Your task to perform on an android device: turn on sleep mode Image 0: 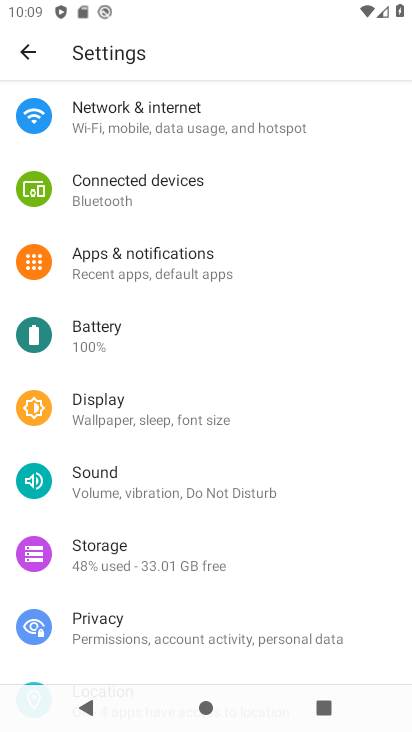
Step 0: click (112, 49)
Your task to perform on an android device: turn on sleep mode Image 1: 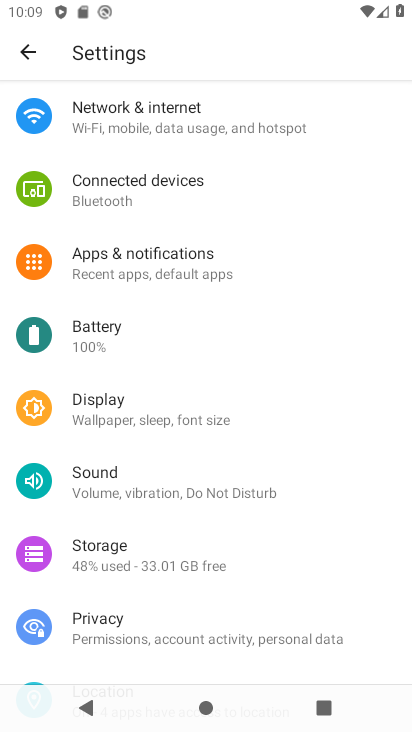
Step 1: drag from (250, 201) to (218, 630)
Your task to perform on an android device: turn on sleep mode Image 2: 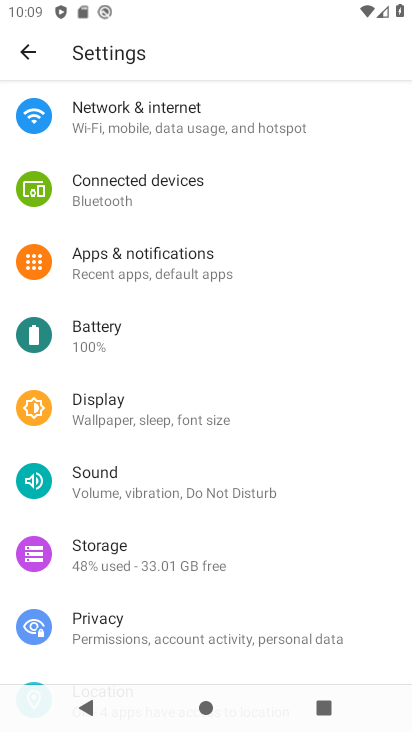
Step 2: click (40, 45)
Your task to perform on an android device: turn on sleep mode Image 3: 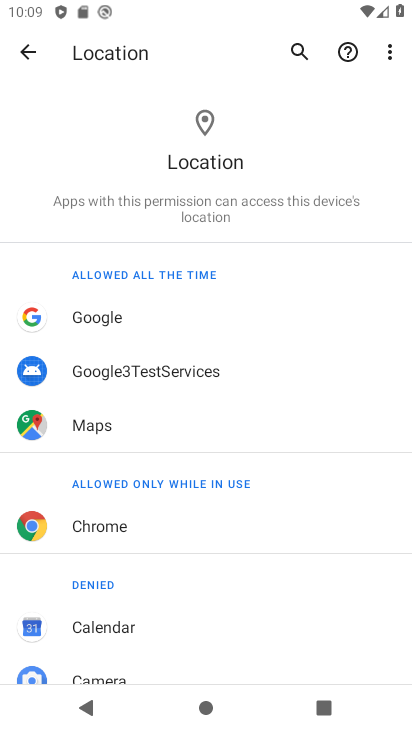
Step 3: press home button
Your task to perform on an android device: turn on sleep mode Image 4: 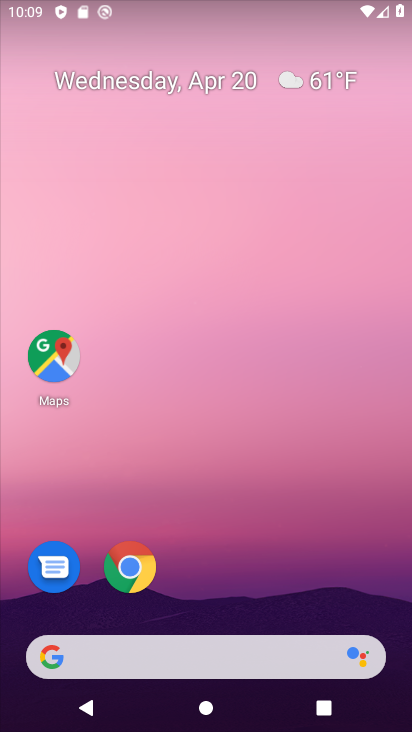
Step 4: drag from (213, 443) to (310, 58)
Your task to perform on an android device: turn on sleep mode Image 5: 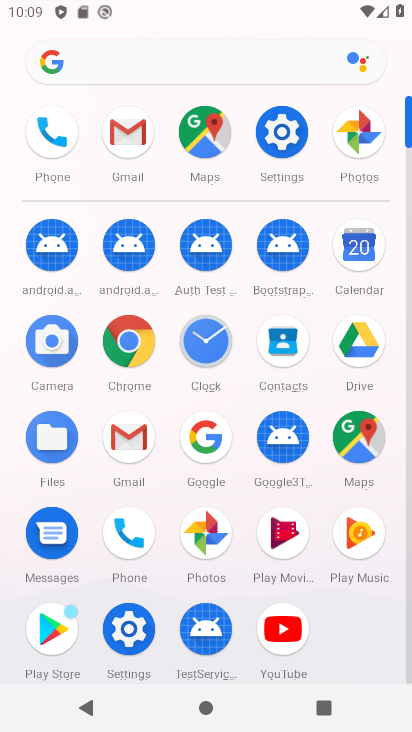
Step 5: click (278, 141)
Your task to perform on an android device: turn on sleep mode Image 6: 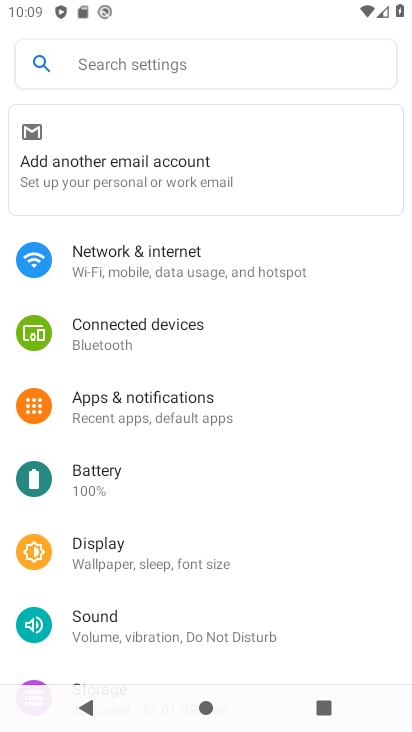
Step 6: click (125, 60)
Your task to perform on an android device: turn on sleep mode Image 7: 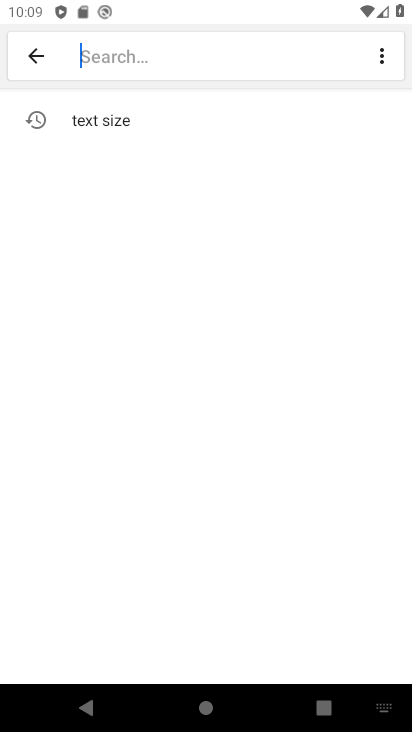
Step 7: type "sleep mode"
Your task to perform on an android device: turn on sleep mode Image 8: 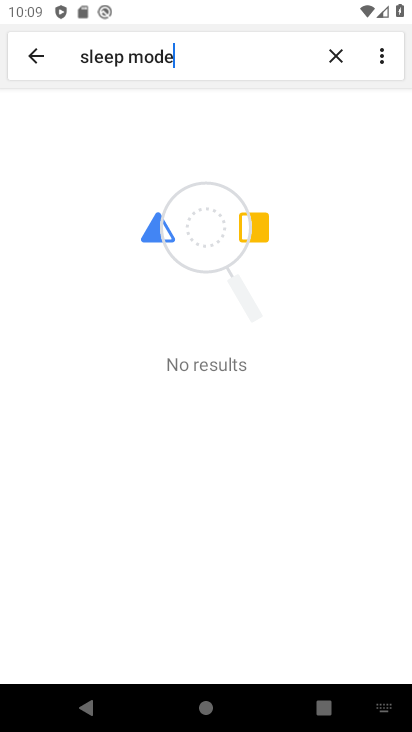
Step 8: task complete